Your task to perform on an android device: open wifi settings Image 0: 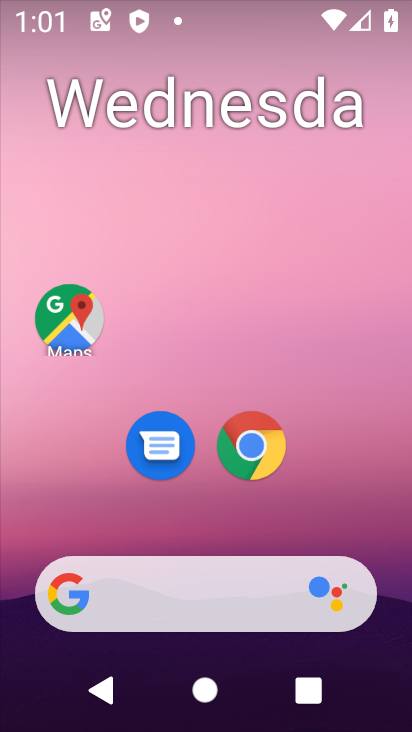
Step 0: drag from (346, 315) to (337, 0)
Your task to perform on an android device: open wifi settings Image 1: 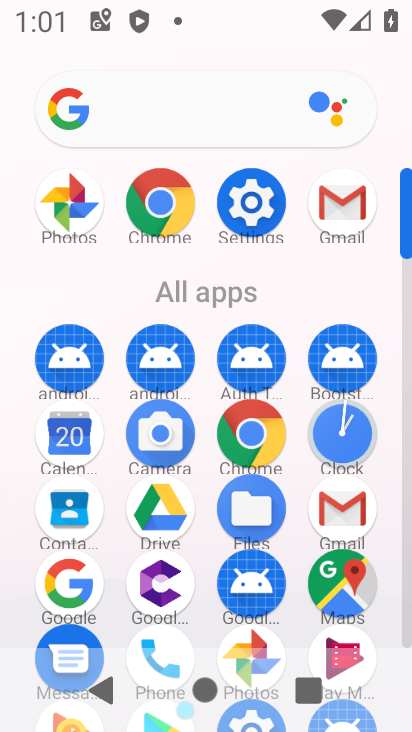
Step 1: click (248, 198)
Your task to perform on an android device: open wifi settings Image 2: 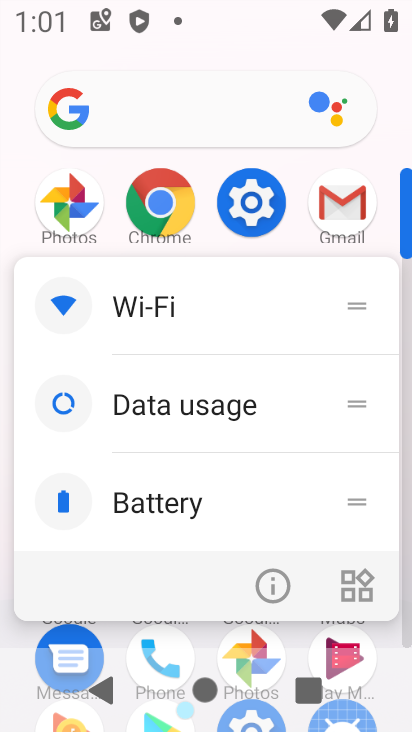
Step 2: click (248, 198)
Your task to perform on an android device: open wifi settings Image 3: 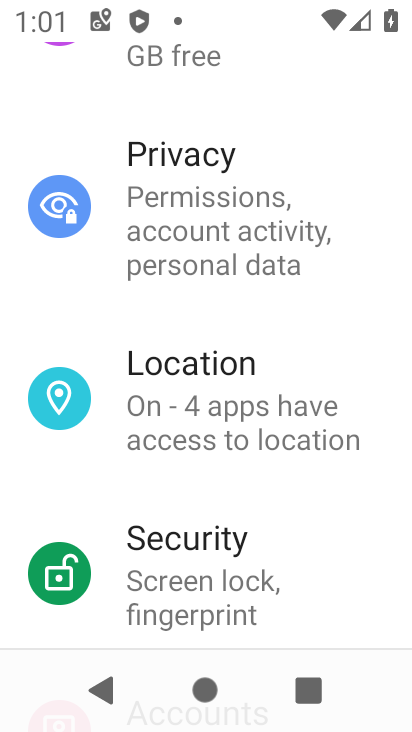
Step 3: drag from (304, 142) to (226, 634)
Your task to perform on an android device: open wifi settings Image 4: 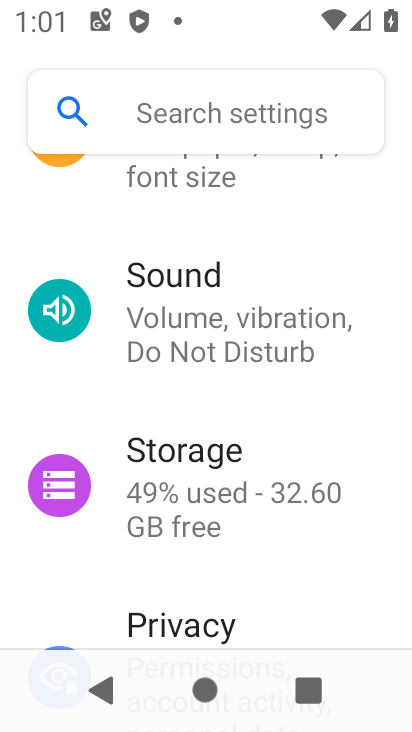
Step 4: drag from (206, 165) to (215, 578)
Your task to perform on an android device: open wifi settings Image 5: 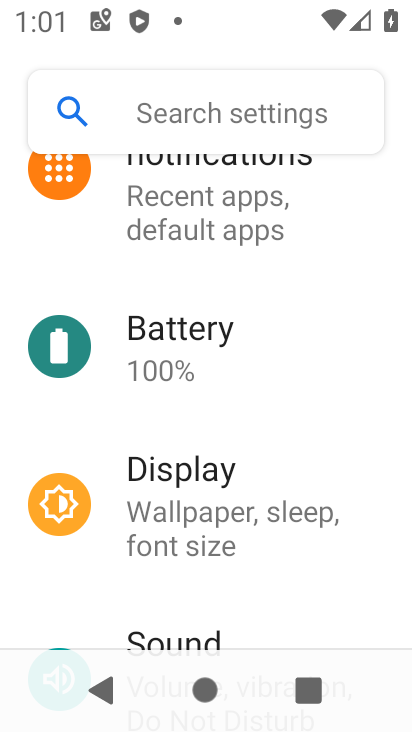
Step 5: drag from (231, 269) to (216, 621)
Your task to perform on an android device: open wifi settings Image 6: 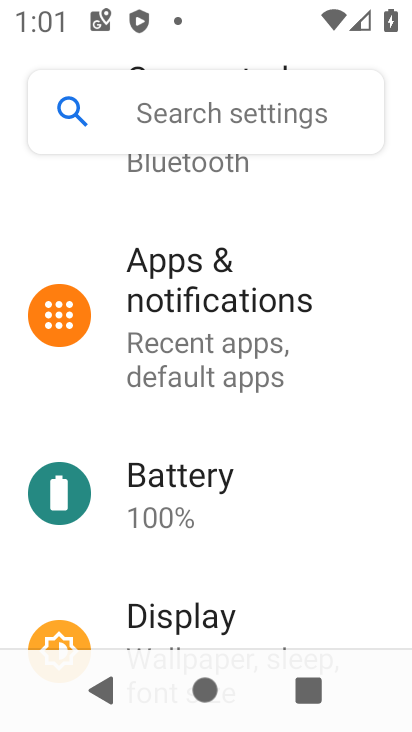
Step 6: drag from (267, 257) to (220, 590)
Your task to perform on an android device: open wifi settings Image 7: 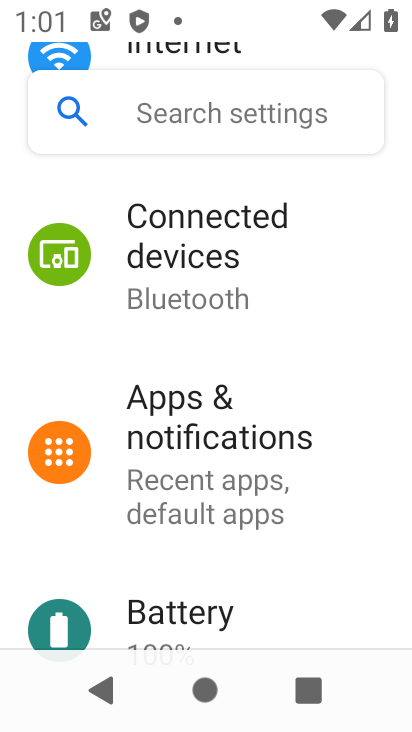
Step 7: drag from (255, 310) to (234, 648)
Your task to perform on an android device: open wifi settings Image 8: 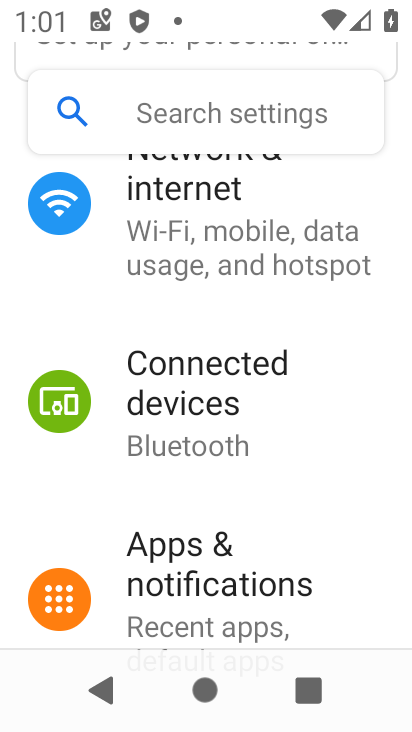
Step 8: click (247, 234)
Your task to perform on an android device: open wifi settings Image 9: 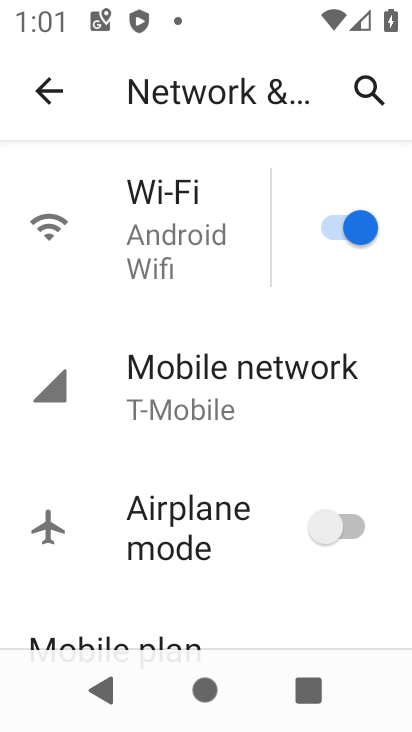
Step 9: click (191, 217)
Your task to perform on an android device: open wifi settings Image 10: 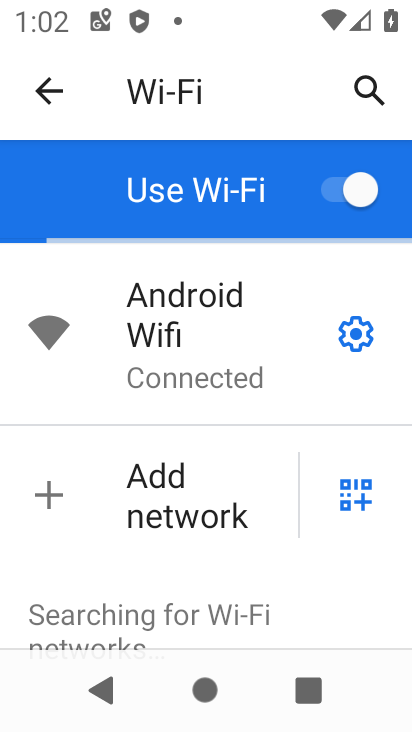
Step 10: click (351, 320)
Your task to perform on an android device: open wifi settings Image 11: 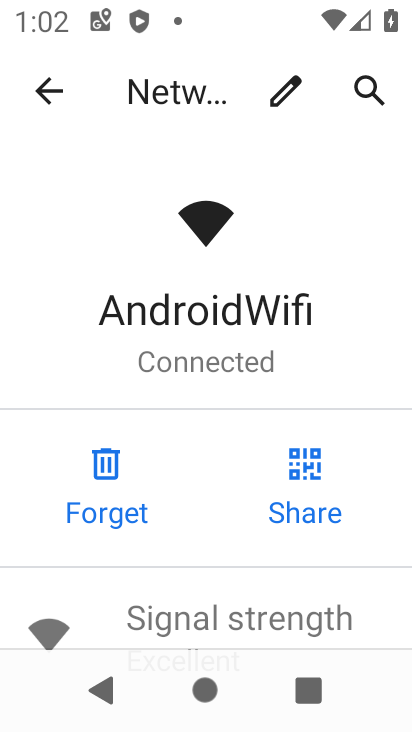
Step 11: task complete